Your task to perform on an android device: turn notification dots off Image 0: 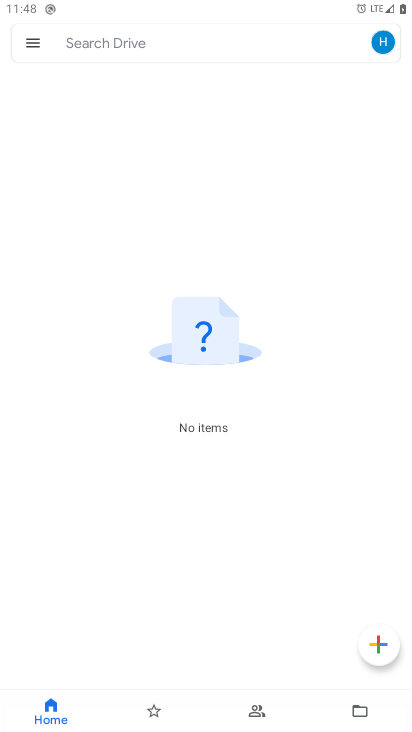
Step 0: press home button
Your task to perform on an android device: turn notification dots off Image 1: 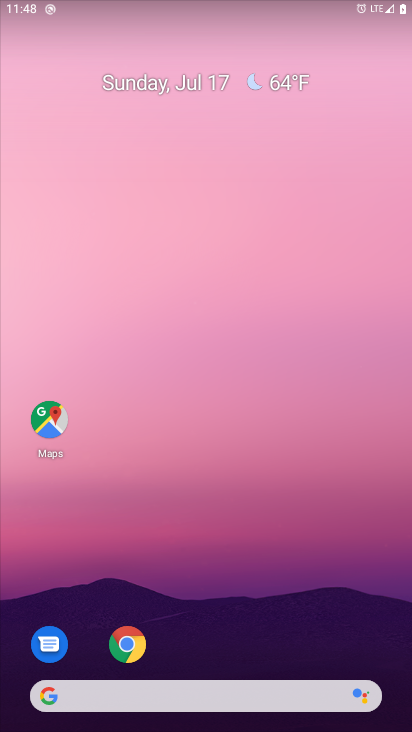
Step 1: drag from (300, 560) to (273, 102)
Your task to perform on an android device: turn notification dots off Image 2: 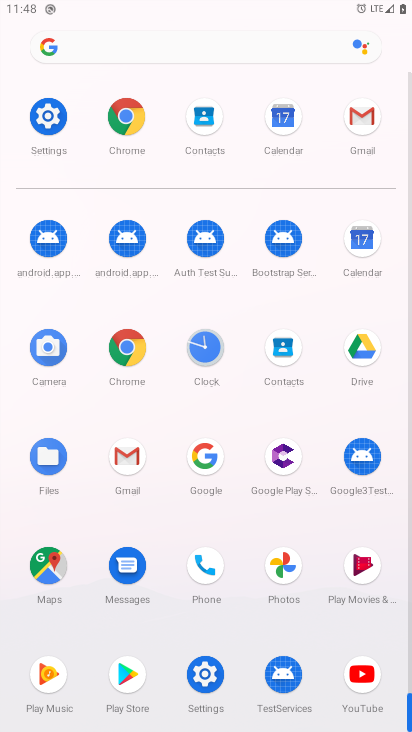
Step 2: click (38, 112)
Your task to perform on an android device: turn notification dots off Image 3: 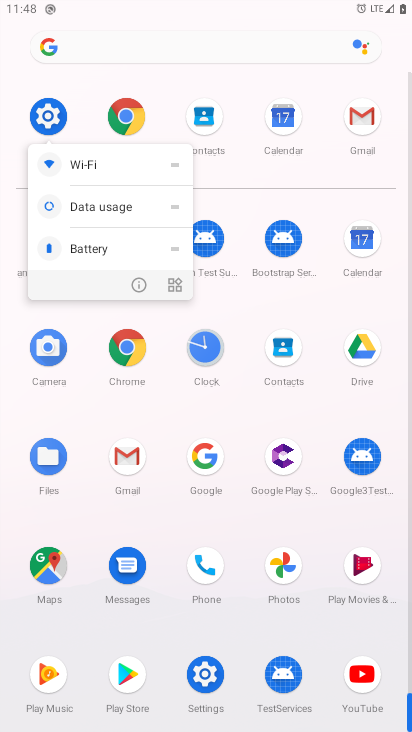
Step 3: click (48, 114)
Your task to perform on an android device: turn notification dots off Image 4: 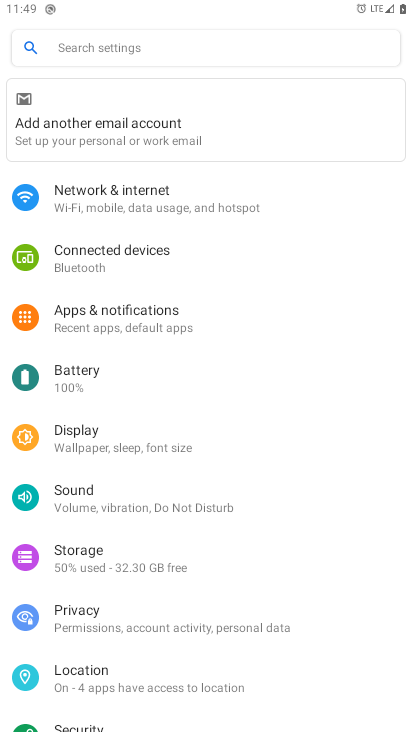
Step 4: click (115, 320)
Your task to perform on an android device: turn notification dots off Image 5: 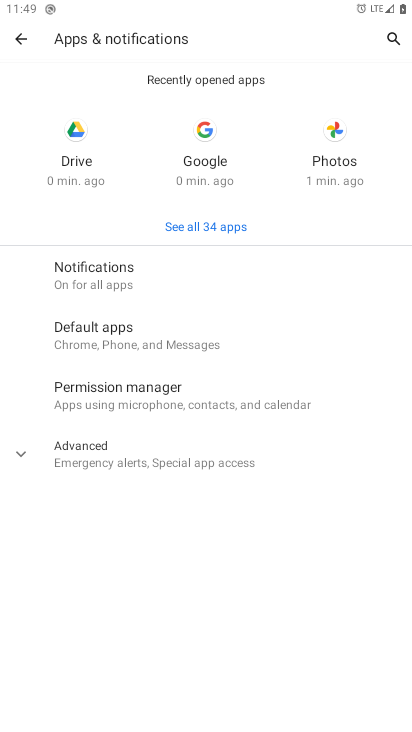
Step 5: click (106, 271)
Your task to perform on an android device: turn notification dots off Image 6: 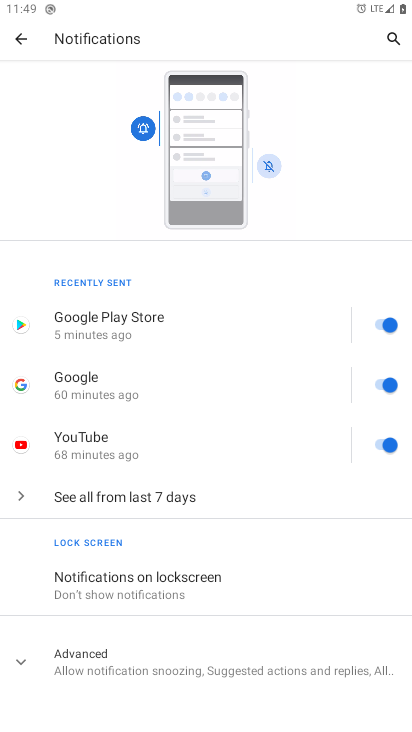
Step 6: click (13, 661)
Your task to perform on an android device: turn notification dots off Image 7: 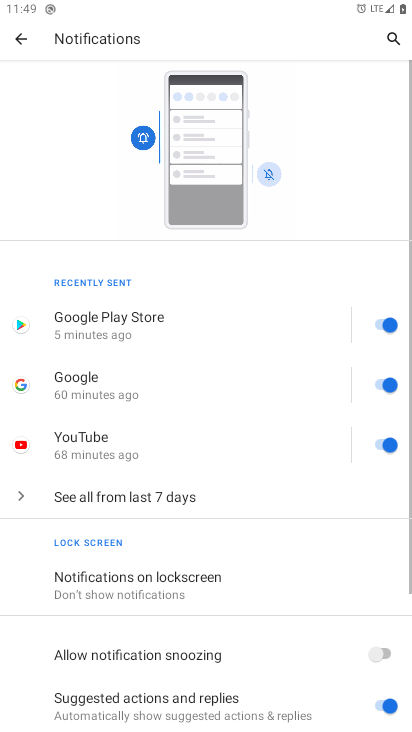
Step 7: drag from (344, 632) to (378, 374)
Your task to perform on an android device: turn notification dots off Image 8: 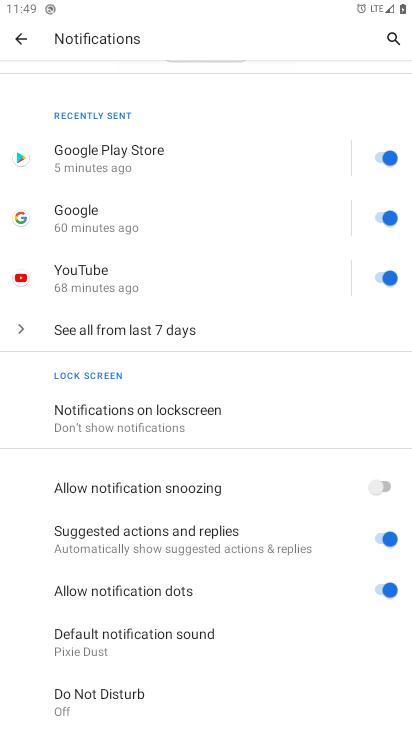
Step 8: click (381, 585)
Your task to perform on an android device: turn notification dots off Image 9: 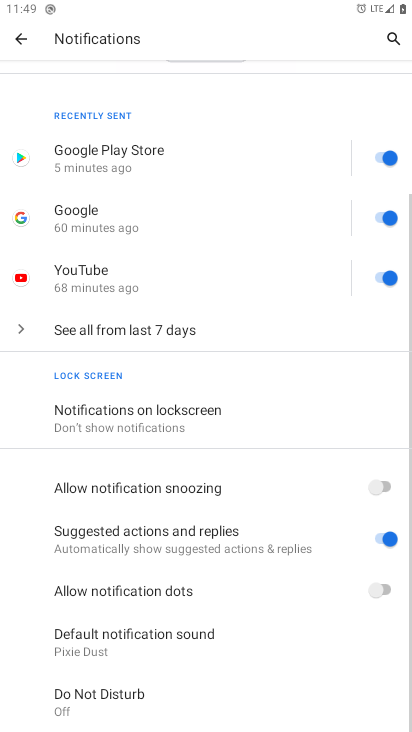
Step 9: task complete